Your task to perform on an android device: turn on airplane mode Image 0: 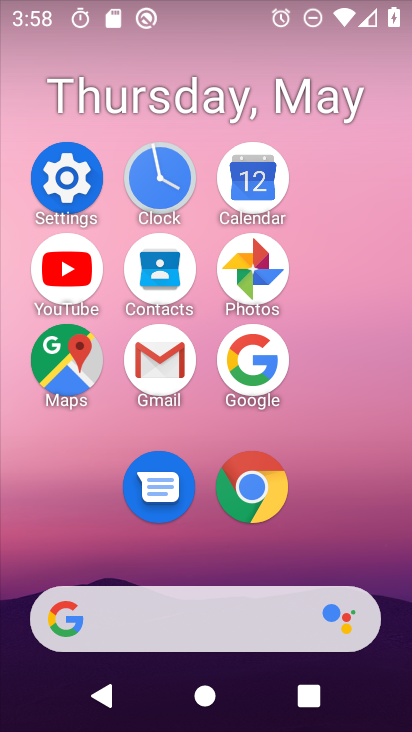
Step 0: click (82, 181)
Your task to perform on an android device: turn on airplane mode Image 1: 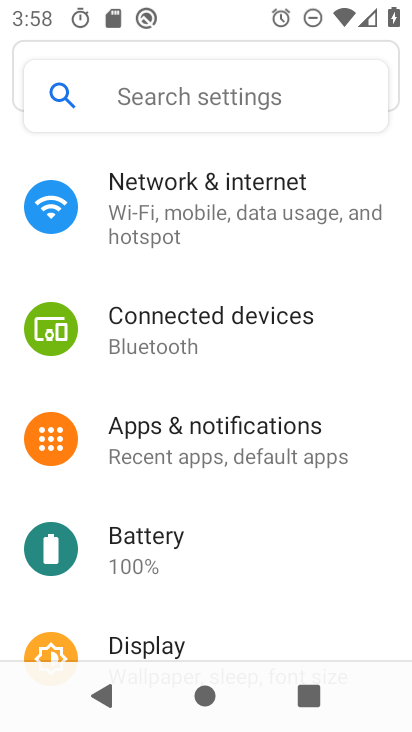
Step 1: click (57, 181)
Your task to perform on an android device: turn on airplane mode Image 2: 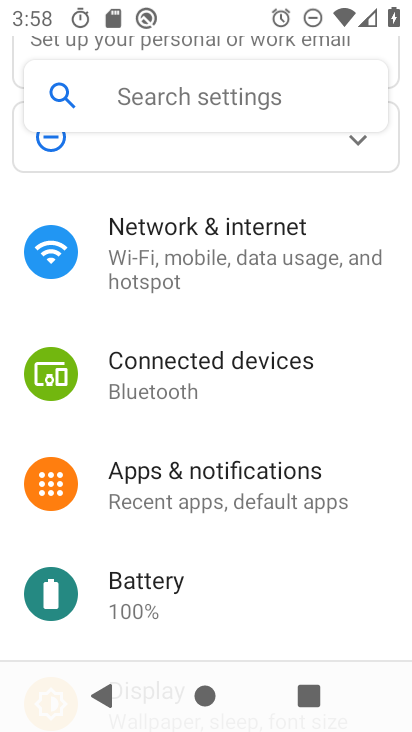
Step 2: click (190, 264)
Your task to perform on an android device: turn on airplane mode Image 3: 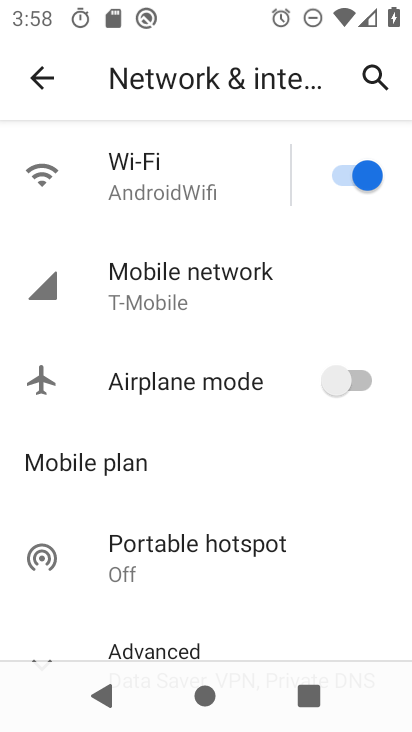
Step 3: click (356, 394)
Your task to perform on an android device: turn on airplane mode Image 4: 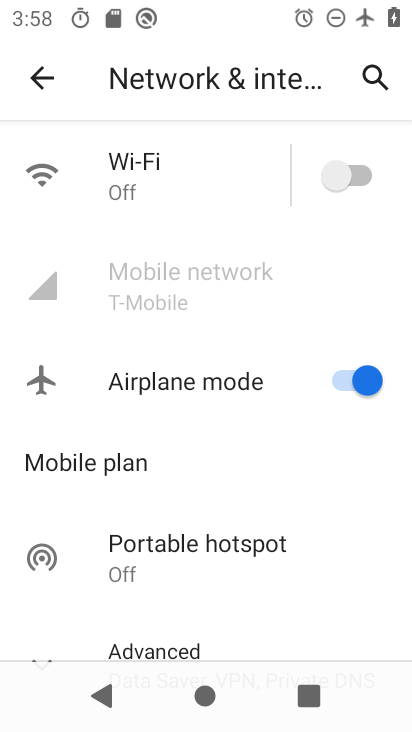
Step 4: task complete